Your task to perform on an android device: Go to CNN.com Image 0: 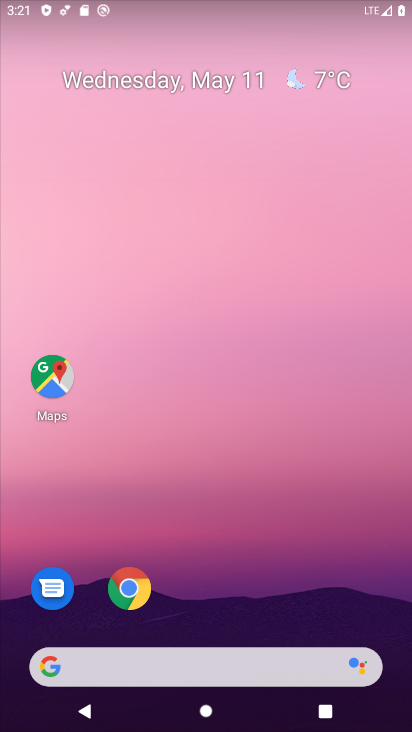
Step 0: click (132, 585)
Your task to perform on an android device: Go to CNN.com Image 1: 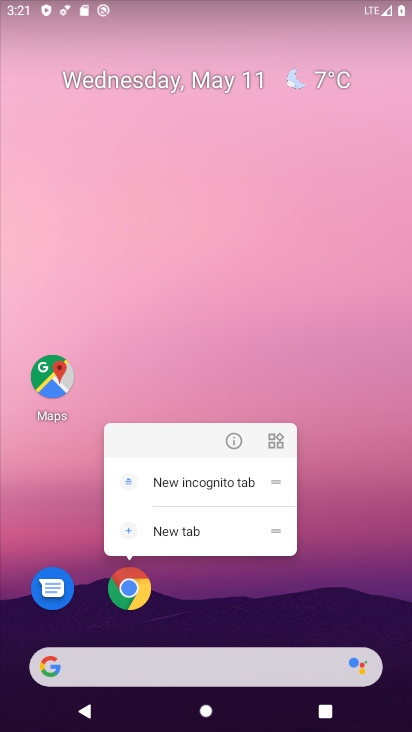
Step 1: click (132, 585)
Your task to perform on an android device: Go to CNN.com Image 2: 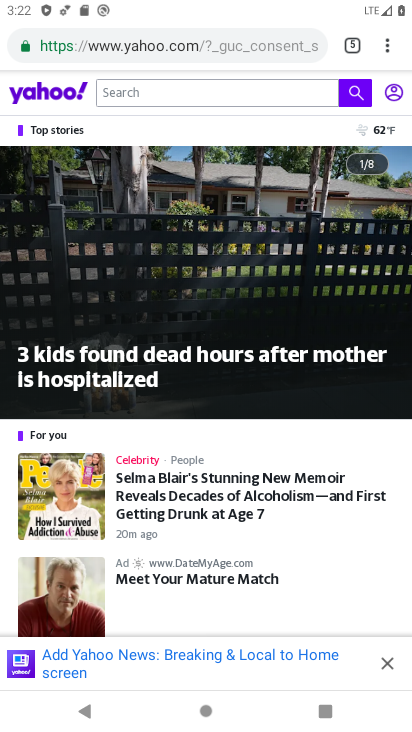
Step 2: click (389, 52)
Your task to perform on an android device: Go to CNN.com Image 3: 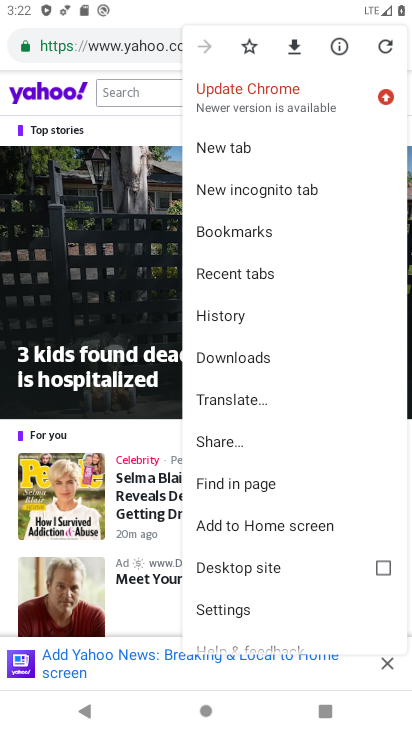
Step 3: click (231, 141)
Your task to perform on an android device: Go to CNN.com Image 4: 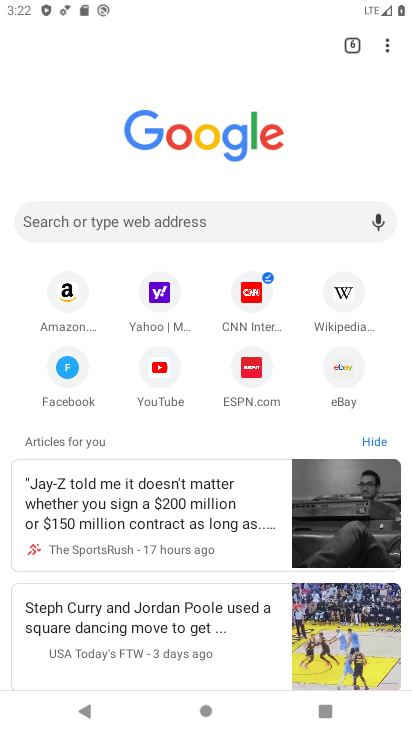
Step 4: click (251, 298)
Your task to perform on an android device: Go to CNN.com Image 5: 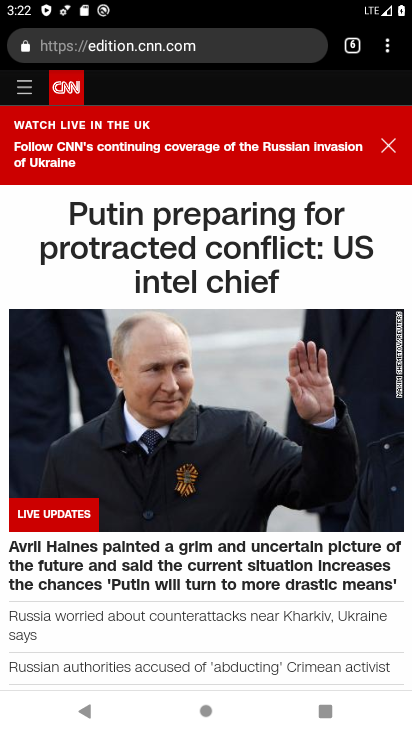
Step 5: task complete